Your task to perform on an android device: Go to CNN.com Image 0: 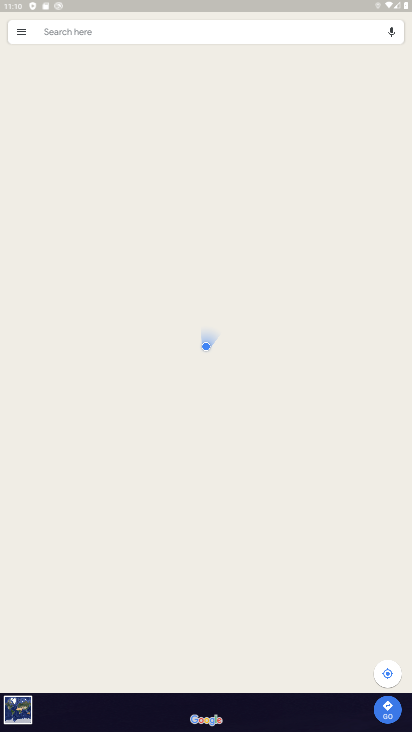
Step 0: click (213, 128)
Your task to perform on an android device: Go to CNN.com Image 1: 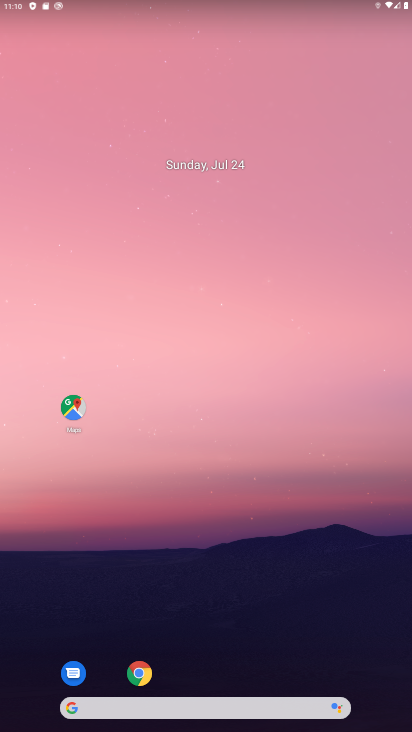
Step 1: drag from (356, 649) to (242, 30)
Your task to perform on an android device: Go to CNN.com Image 2: 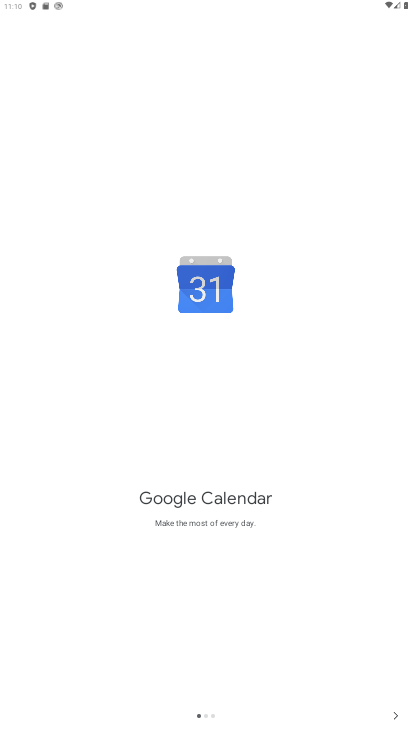
Step 2: press home button
Your task to perform on an android device: Go to CNN.com Image 3: 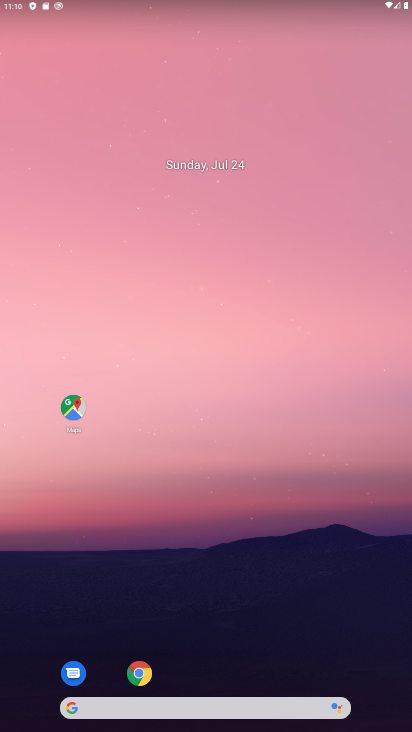
Step 3: drag from (352, 649) to (263, 57)
Your task to perform on an android device: Go to CNN.com Image 4: 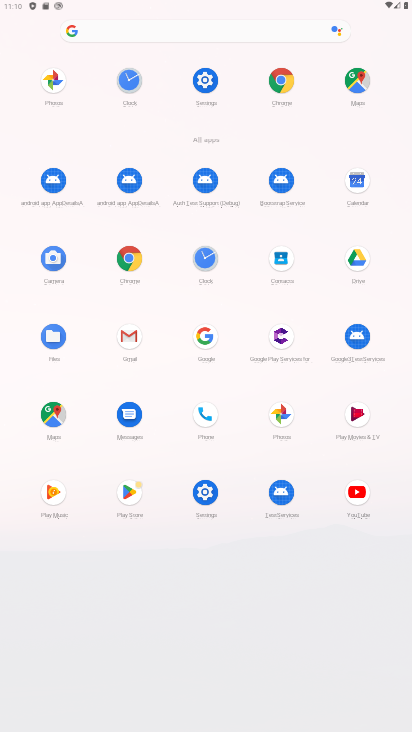
Step 4: click (282, 75)
Your task to perform on an android device: Go to CNN.com Image 5: 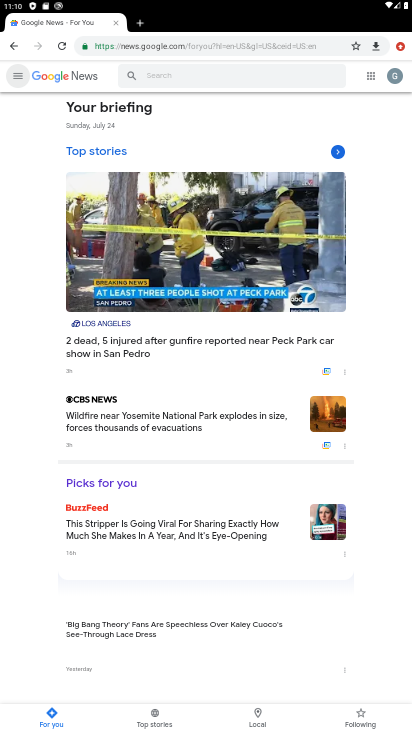
Step 5: click (185, 41)
Your task to perform on an android device: Go to CNN.com Image 6: 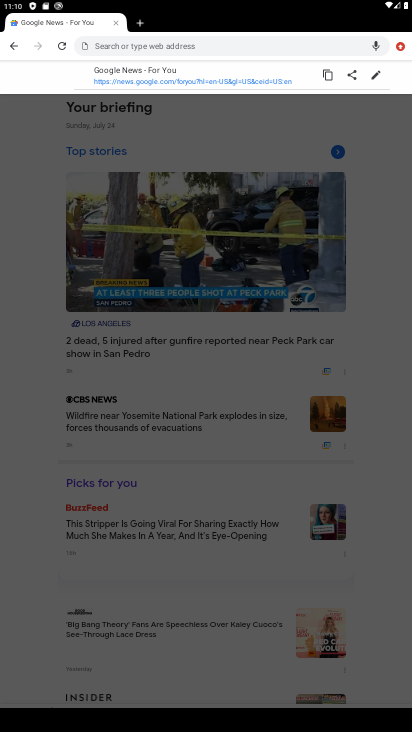
Step 6: type "cnn.com"
Your task to perform on an android device: Go to CNN.com Image 7: 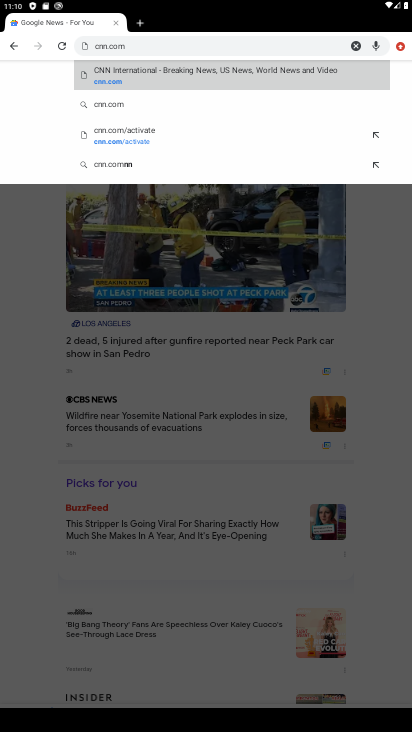
Step 7: click (119, 74)
Your task to perform on an android device: Go to CNN.com Image 8: 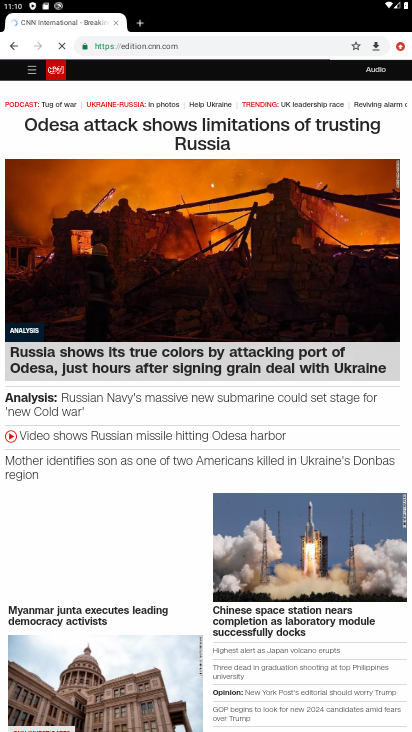
Step 8: task complete